Your task to perform on an android device: Open network settings Image 0: 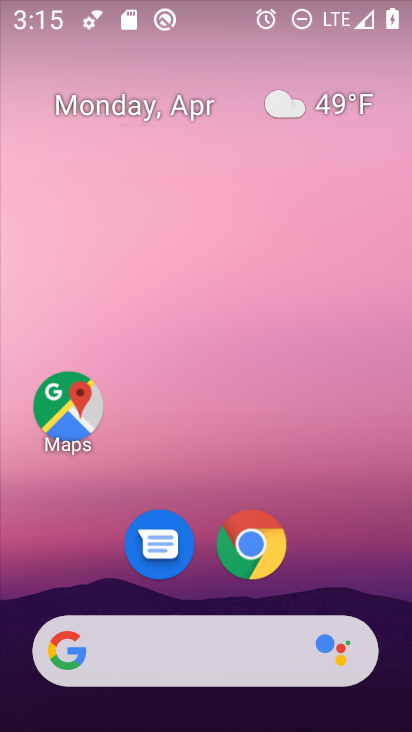
Step 0: drag from (322, 566) to (198, 39)
Your task to perform on an android device: Open network settings Image 1: 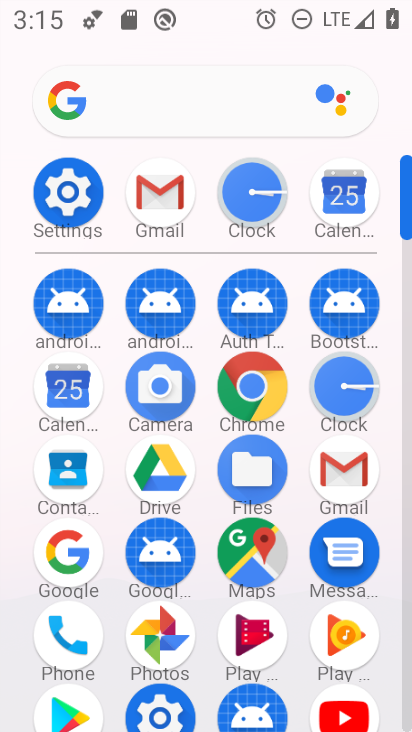
Step 1: click (75, 207)
Your task to perform on an android device: Open network settings Image 2: 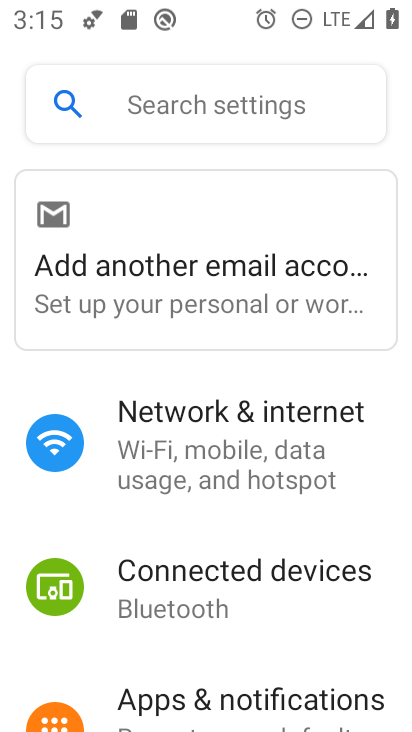
Step 2: drag from (296, 643) to (283, 577)
Your task to perform on an android device: Open network settings Image 3: 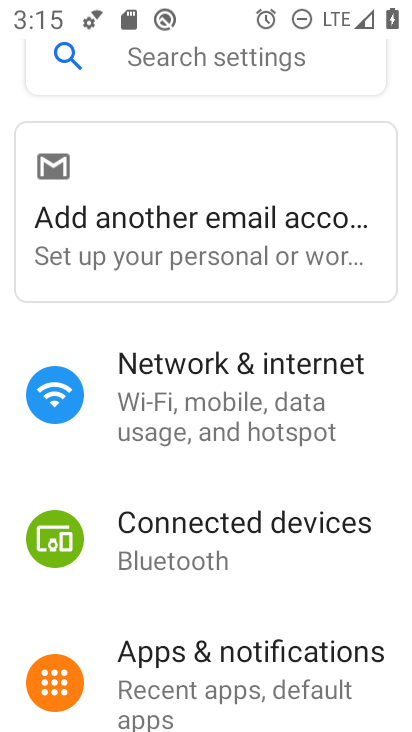
Step 3: click (236, 403)
Your task to perform on an android device: Open network settings Image 4: 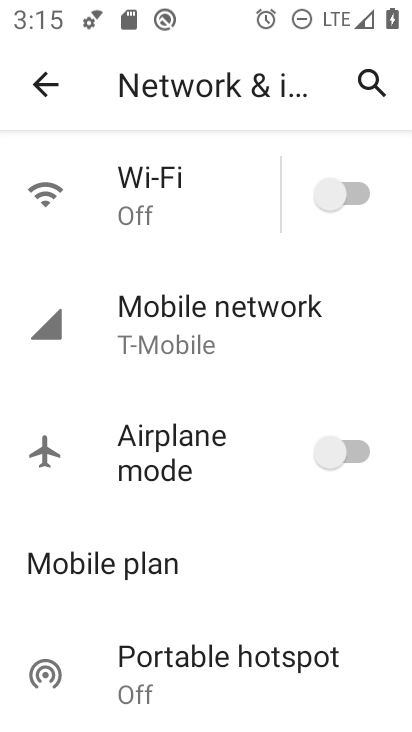
Step 4: click (169, 302)
Your task to perform on an android device: Open network settings Image 5: 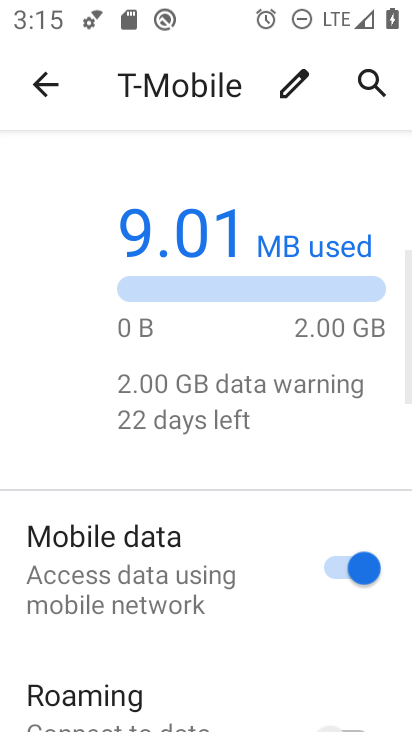
Step 5: task complete